Your task to perform on an android device: toggle data saver in the chrome app Image 0: 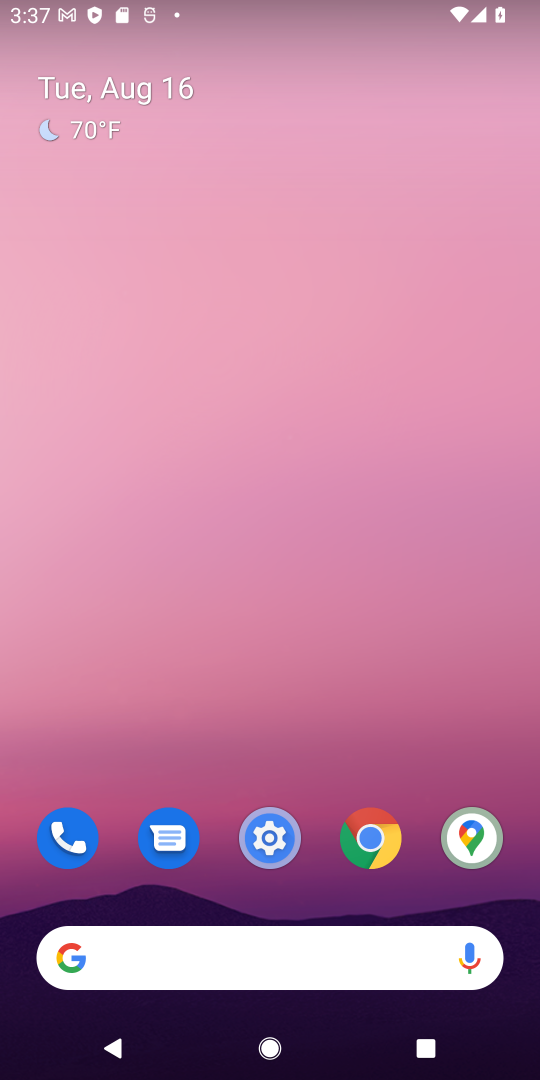
Step 0: click (370, 853)
Your task to perform on an android device: toggle data saver in the chrome app Image 1: 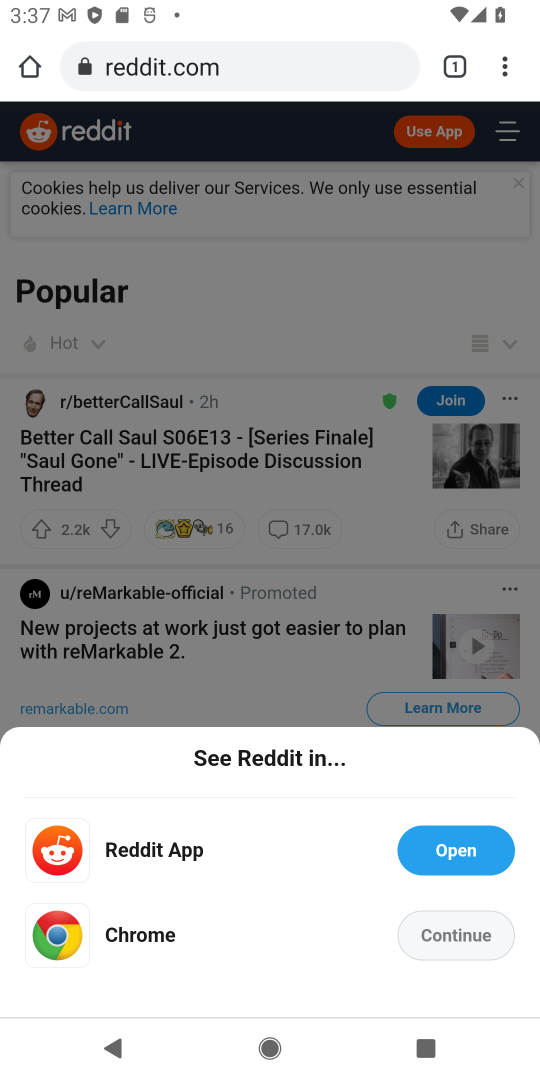
Step 1: drag from (508, 73) to (358, 823)
Your task to perform on an android device: toggle data saver in the chrome app Image 2: 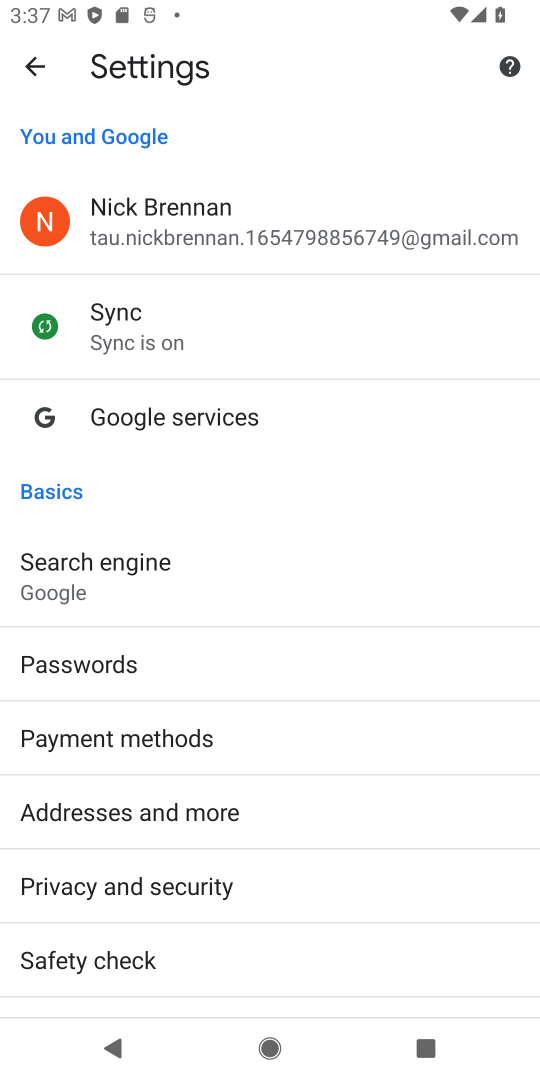
Step 2: drag from (235, 862) to (258, 179)
Your task to perform on an android device: toggle data saver in the chrome app Image 3: 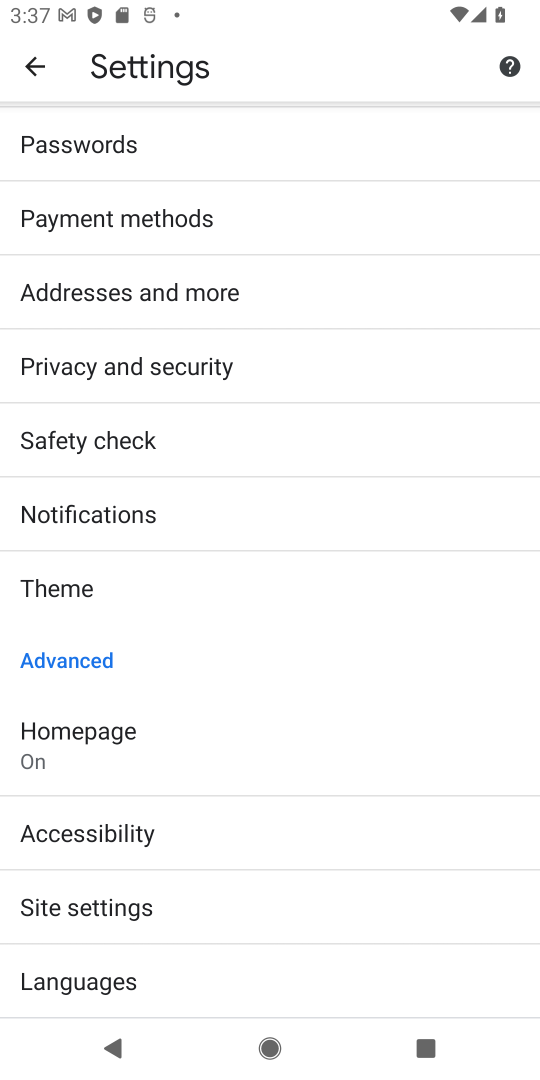
Step 3: drag from (173, 945) to (229, 466)
Your task to perform on an android device: toggle data saver in the chrome app Image 4: 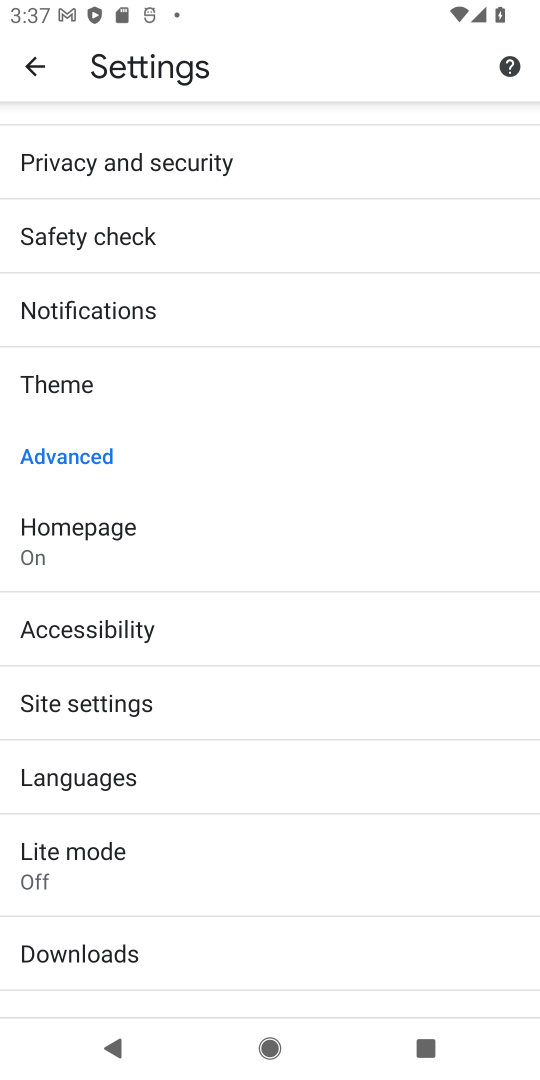
Step 4: click (134, 842)
Your task to perform on an android device: toggle data saver in the chrome app Image 5: 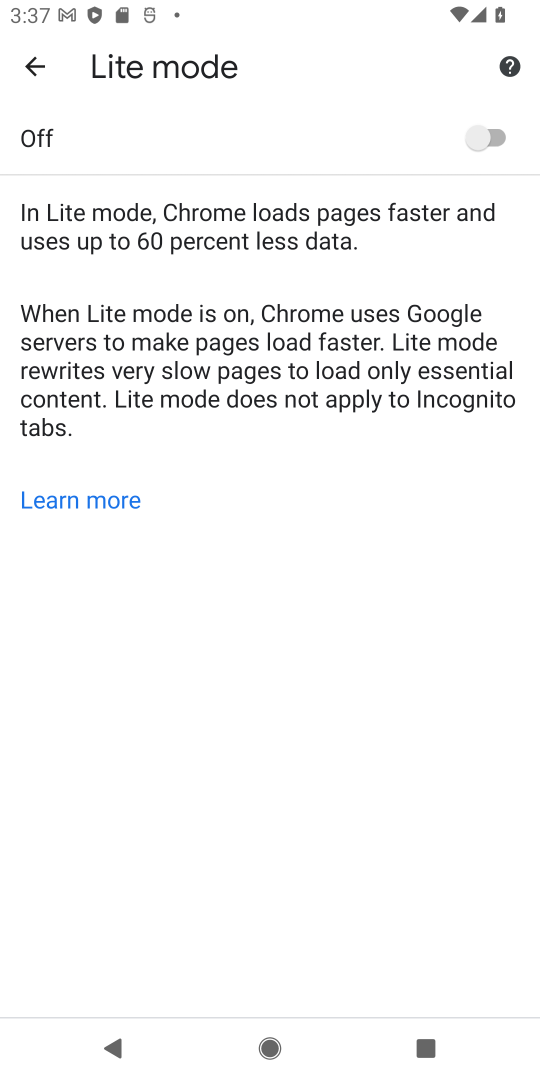
Step 5: click (481, 130)
Your task to perform on an android device: toggle data saver in the chrome app Image 6: 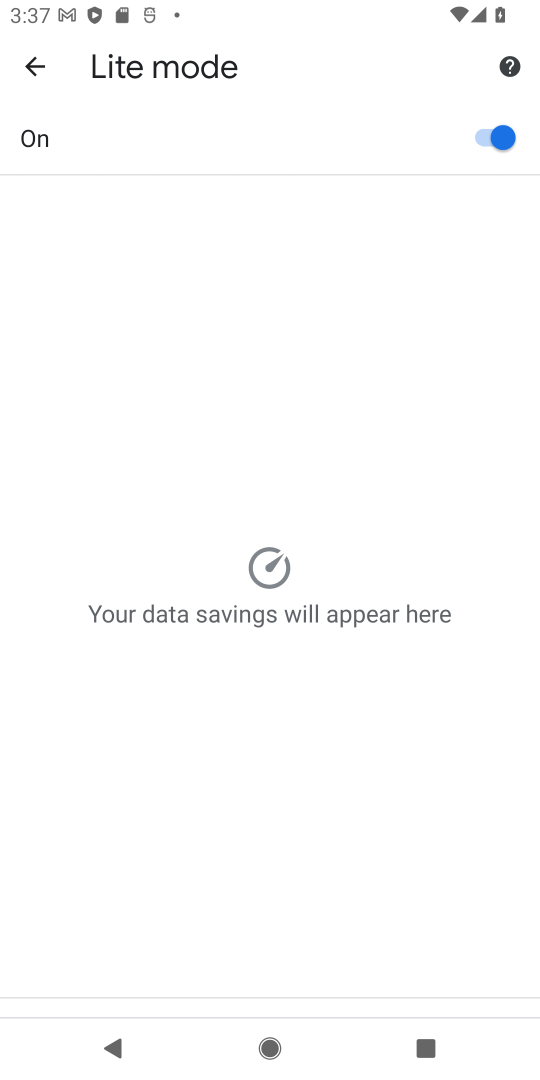
Step 6: task complete